Your task to perform on an android device: turn off smart reply in the gmail app Image 0: 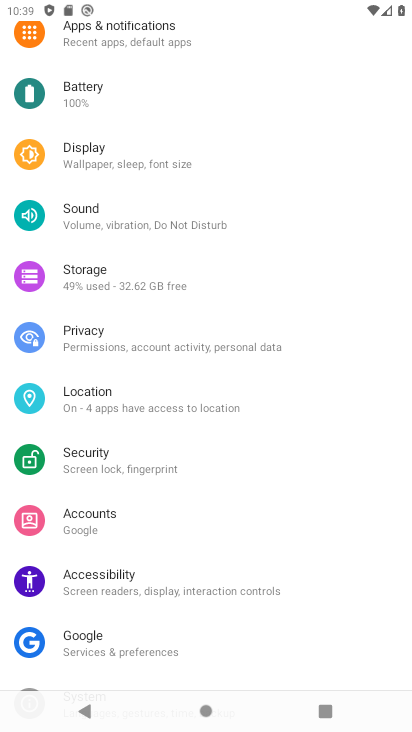
Step 0: press home button
Your task to perform on an android device: turn off smart reply in the gmail app Image 1: 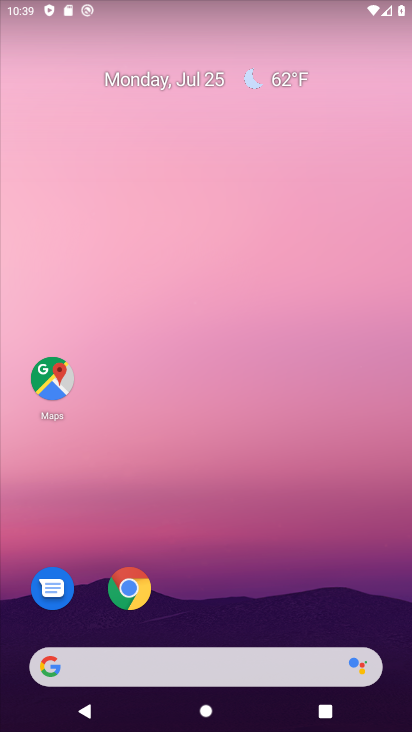
Step 1: drag from (36, 621) to (280, 71)
Your task to perform on an android device: turn off smart reply in the gmail app Image 2: 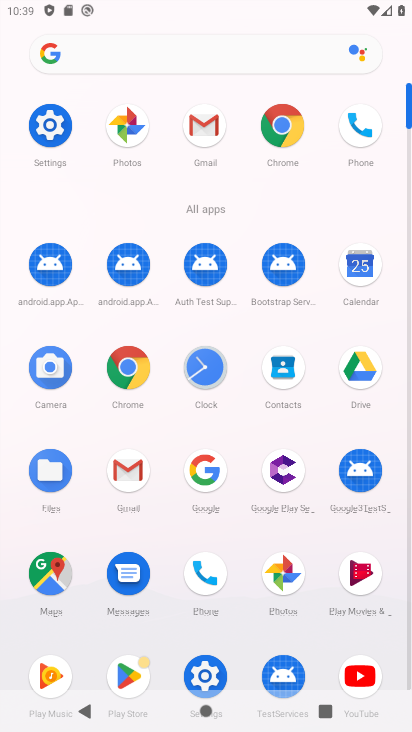
Step 2: click (200, 129)
Your task to perform on an android device: turn off smart reply in the gmail app Image 3: 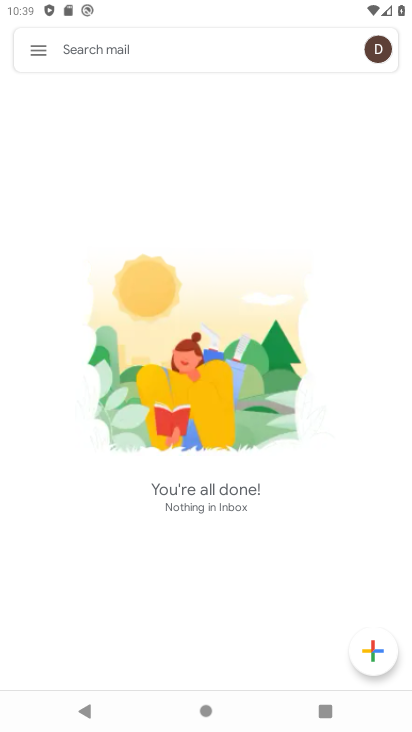
Step 3: click (35, 45)
Your task to perform on an android device: turn off smart reply in the gmail app Image 4: 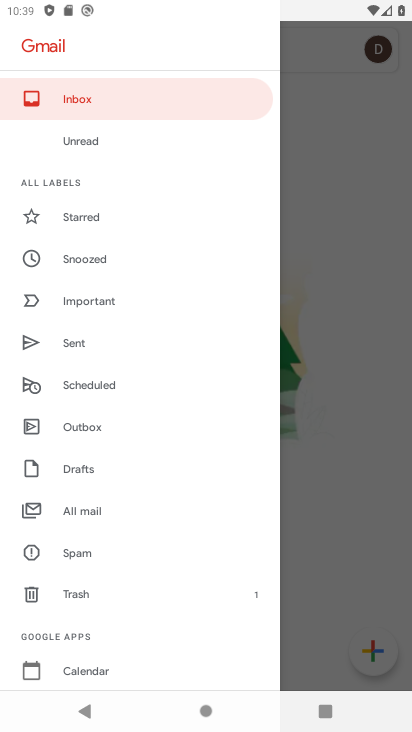
Step 4: drag from (4, 656) to (241, 103)
Your task to perform on an android device: turn off smart reply in the gmail app Image 5: 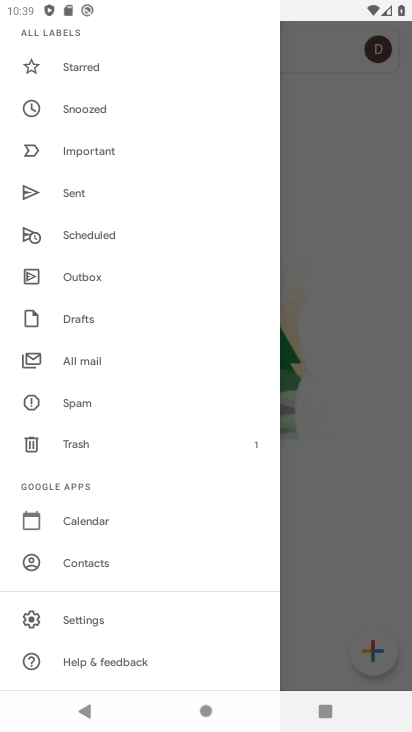
Step 5: click (73, 624)
Your task to perform on an android device: turn off smart reply in the gmail app Image 6: 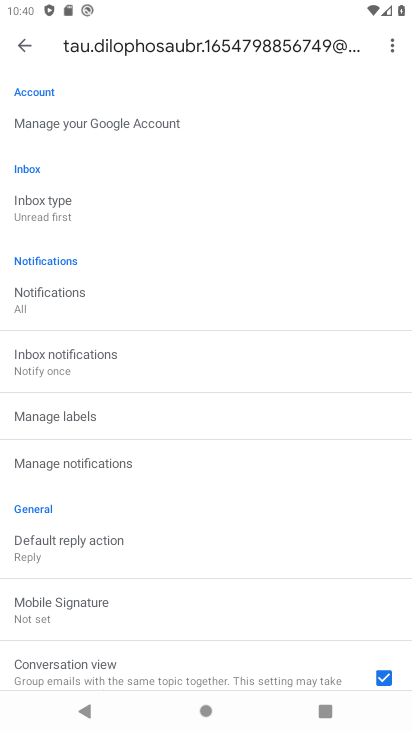
Step 6: drag from (10, 580) to (275, 76)
Your task to perform on an android device: turn off smart reply in the gmail app Image 7: 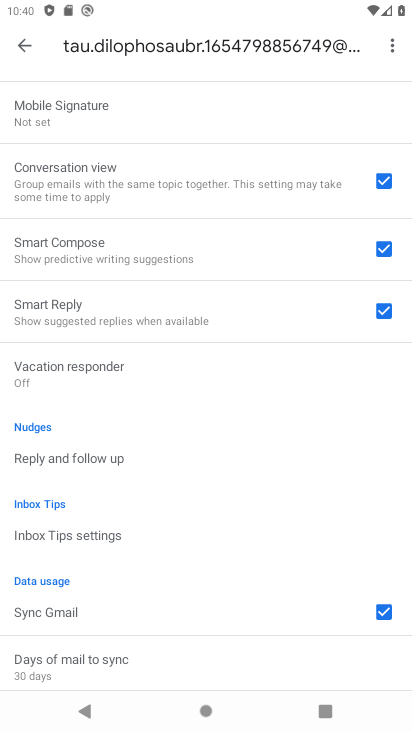
Step 7: click (383, 314)
Your task to perform on an android device: turn off smart reply in the gmail app Image 8: 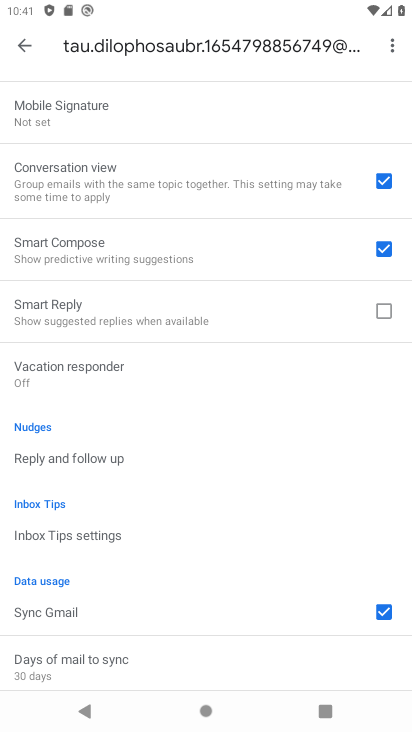
Step 8: task complete